Your task to perform on an android device: find snoozed emails in the gmail app Image 0: 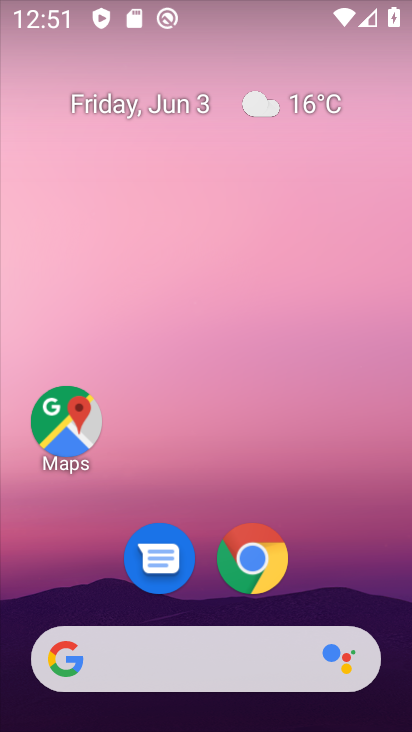
Step 0: drag from (360, 469) to (394, 184)
Your task to perform on an android device: find snoozed emails in the gmail app Image 1: 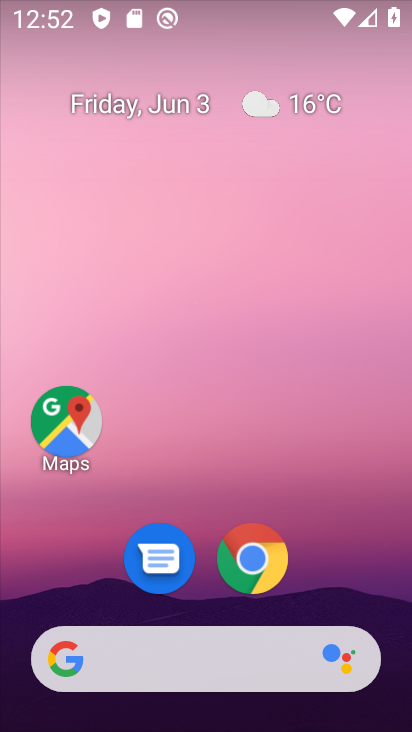
Step 1: drag from (341, 592) to (375, 230)
Your task to perform on an android device: find snoozed emails in the gmail app Image 2: 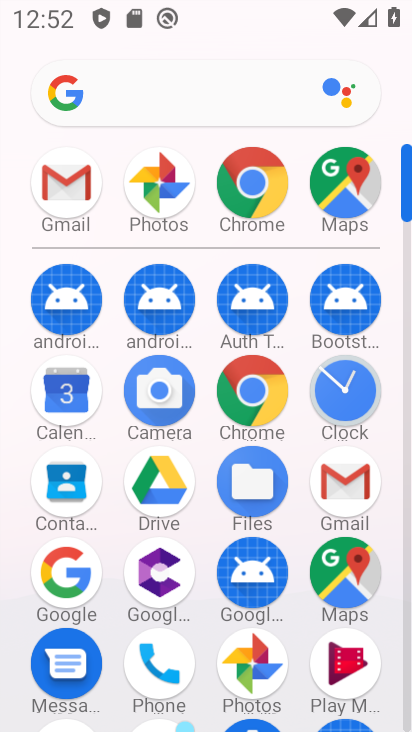
Step 2: click (356, 492)
Your task to perform on an android device: find snoozed emails in the gmail app Image 3: 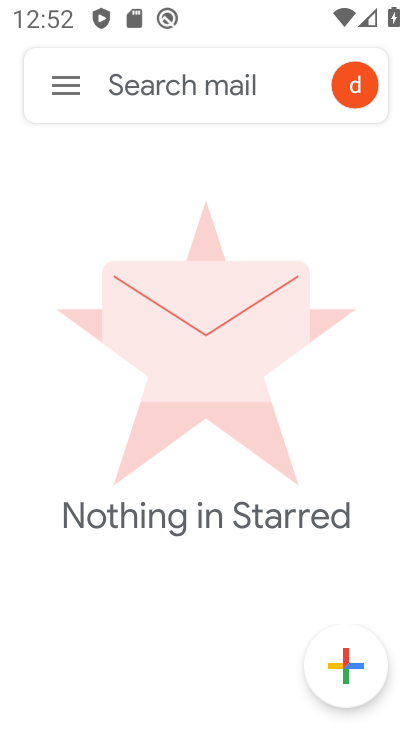
Step 3: click (63, 90)
Your task to perform on an android device: find snoozed emails in the gmail app Image 4: 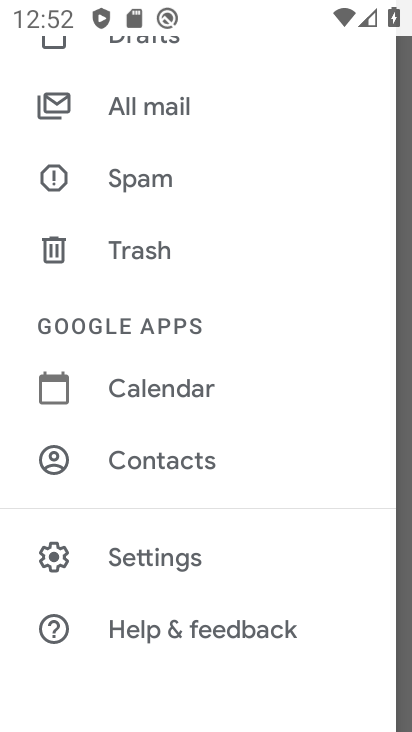
Step 4: drag from (286, 266) to (284, 369)
Your task to perform on an android device: find snoozed emails in the gmail app Image 5: 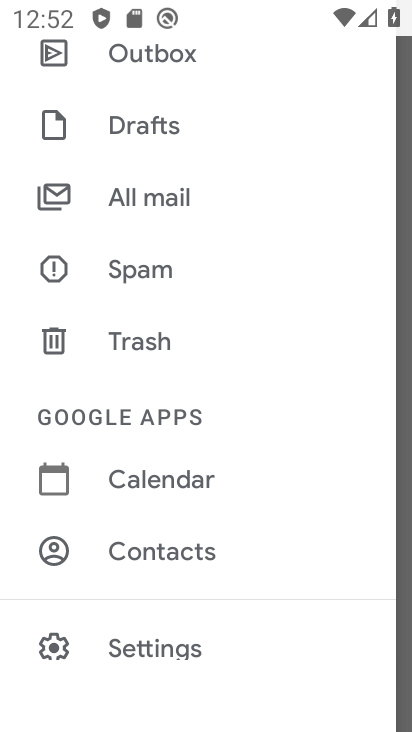
Step 5: drag from (271, 298) to (295, 445)
Your task to perform on an android device: find snoozed emails in the gmail app Image 6: 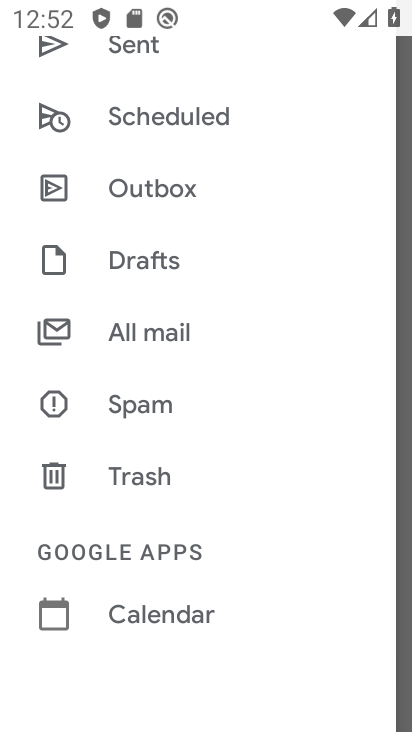
Step 6: drag from (302, 214) to (303, 324)
Your task to perform on an android device: find snoozed emails in the gmail app Image 7: 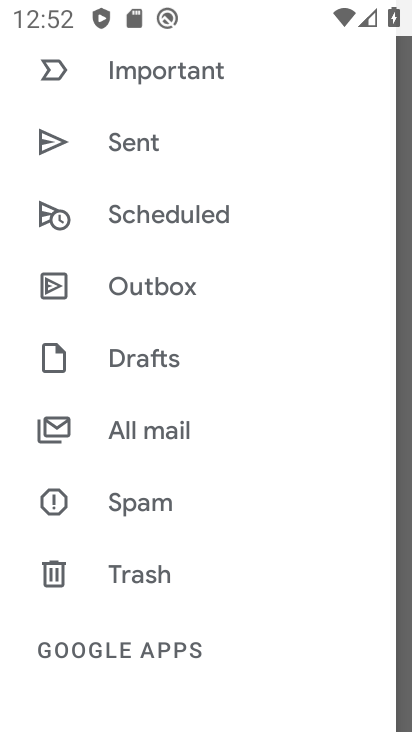
Step 7: drag from (310, 171) to (310, 275)
Your task to perform on an android device: find snoozed emails in the gmail app Image 8: 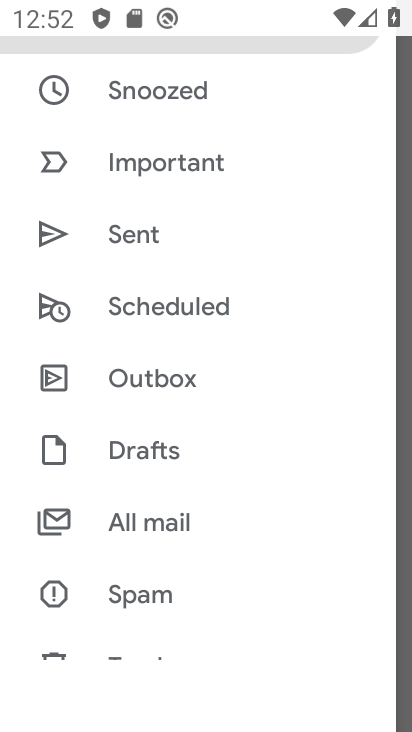
Step 8: drag from (305, 161) to (305, 309)
Your task to perform on an android device: find snoozed emails in the gmail app Image 9: 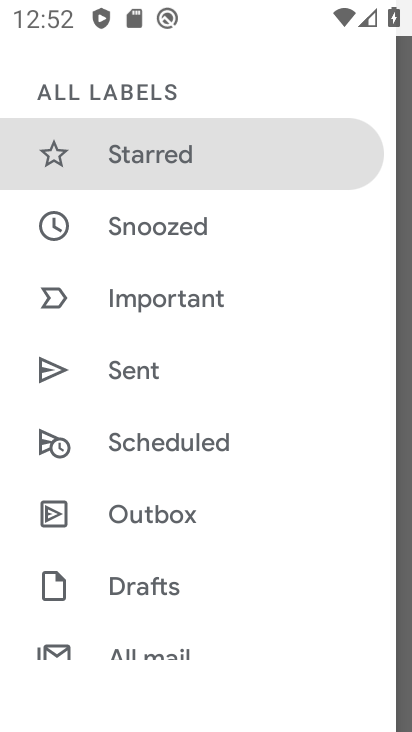
Step 9: drag from (293, 105) to (296, 309)
Your task to perform on an android device: find snoozed emails in the gmail app Image 10: 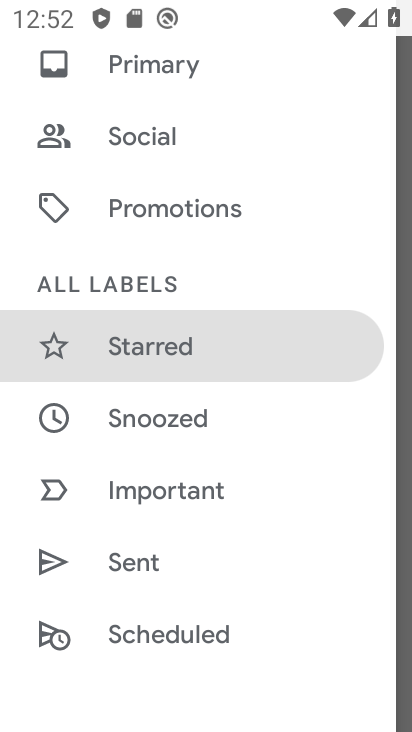
Step 10: click (208, 427)
Your task to perform on an android device: find snoozed emails in the gmail app Image 11: 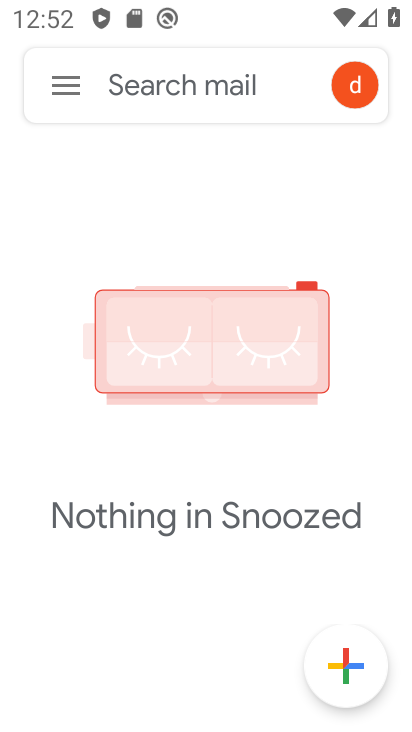
Step 11: task complete